Your task to perform on an android device: turn off smart reply in the gmail app Image 0: 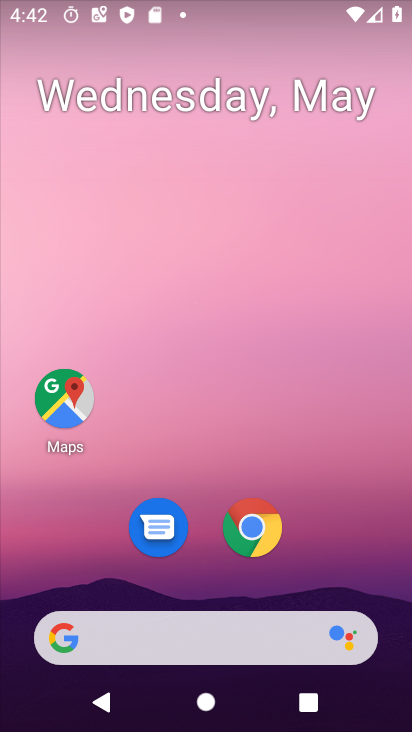
Step 0: drag from (277, 542) to (295, 67)
Your task to perform on an android device: turn off smart reply in the gmail app Image 1: 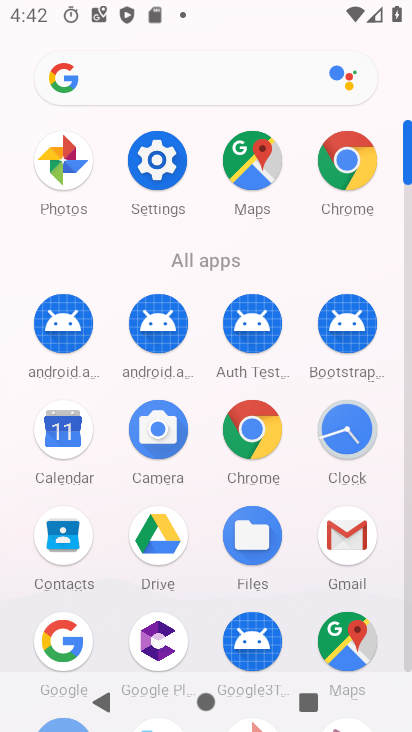
Step 1: click (341, 529)
Your task to perform on an android device: turn off smart reply in the gmail app Image 2: 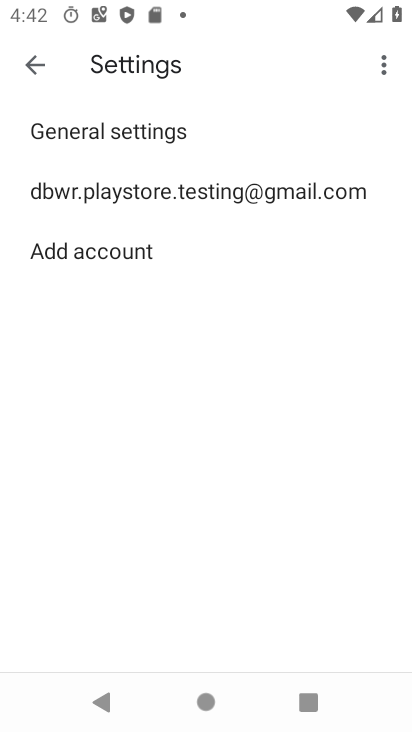
Step 2: click (187, 188)
Your task to perform on an android device: turn off smart reply in the gmail app Image 3: 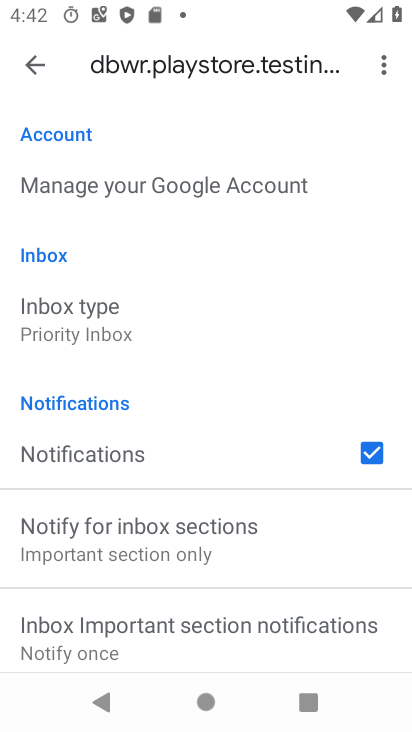
Step 3: drag from (289, 546) to (284, 143)
Your task to perform on an android device: turn off smart reply in the gmail app Image 4: 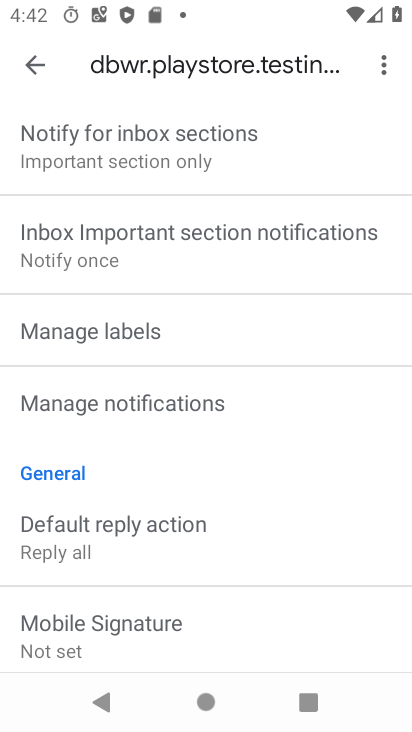
Step 4: drag from (263, 614) to (267, 217)
Your task to perform on an android device: turn off smart reply in the gmail app Image 5: 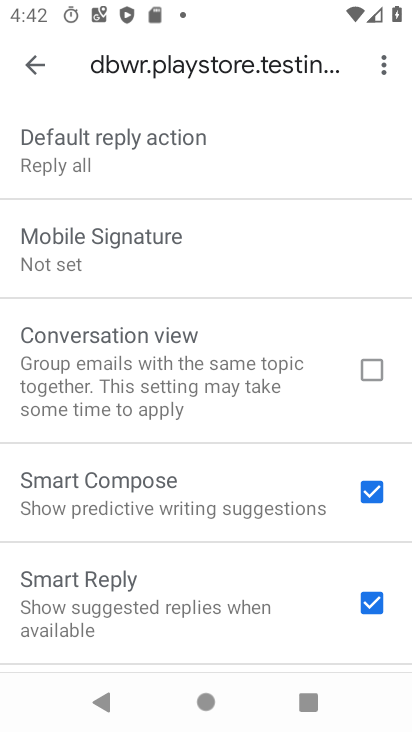
Step 5: click (368, 597)
Your task to perform on an android device: turn off smart reply in the gmail app Image 6: 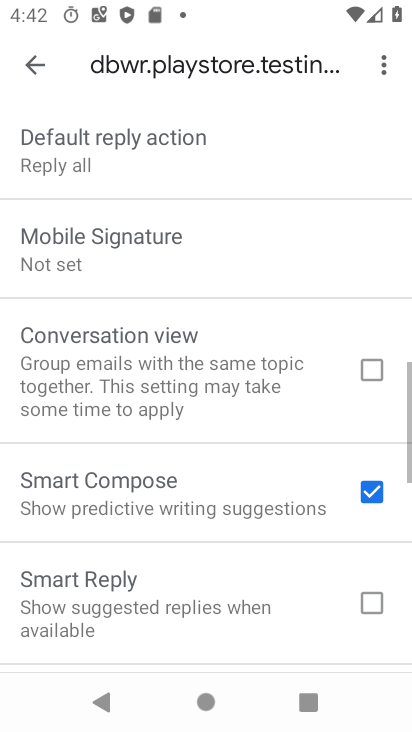
Step 6: task complete